Your task to perform on an android device: Open the web browser Image 0: 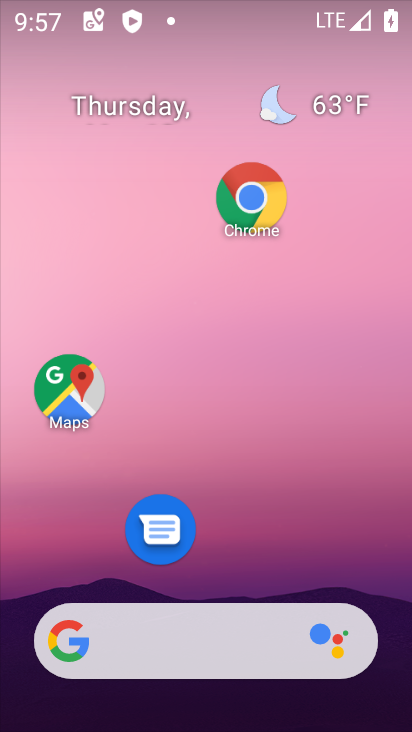
Step 0: drag from (196, 622) to (325, 20)
Your task to perform on an android device: Open the web browser Image 1: 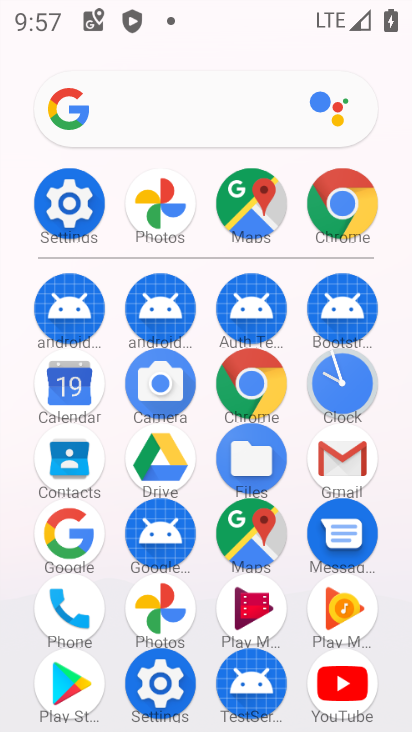
Step 1: click (342, 212)
Your task to perform on an android device: Open the web browser Image 2: 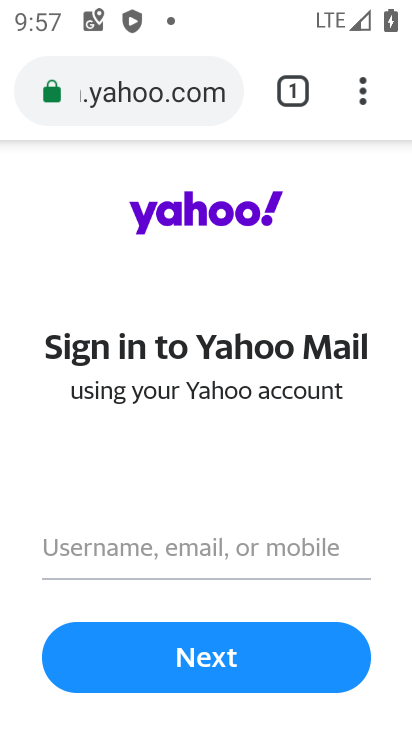
Step 2: task complete